Your task to perform on an android device: empty trash in the gmail app Image 0: 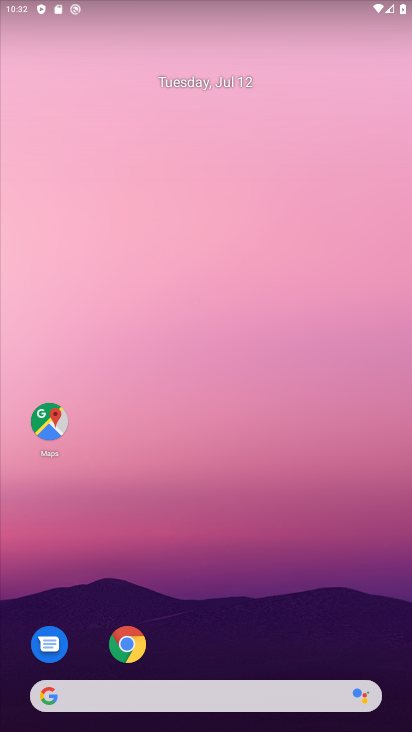
Step 0: drag from (206, 636) to (312, 56)
Your task to perform on an android device: empty trash in the gmail app Image 1: 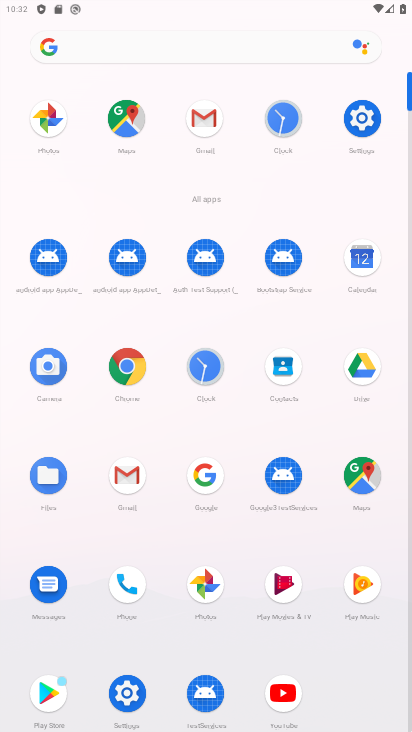
Step 1: click (207, 125)
Your task to perform on an android device: empty trash in the gmail app Image 2: 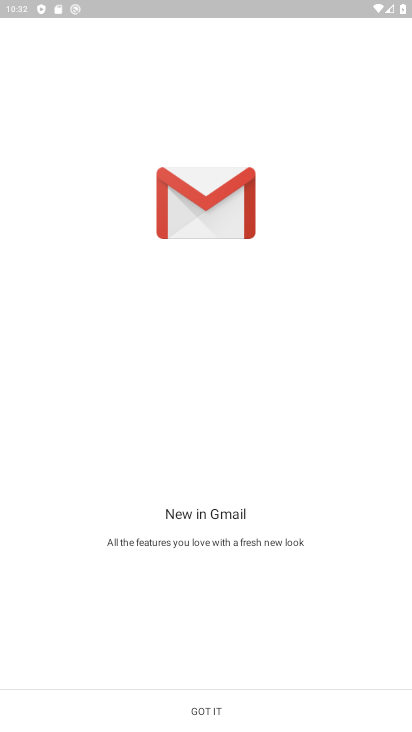
Step 2: click (209, 712)
Your task to perform on an android device: empty trash in the gmail app Image 3: 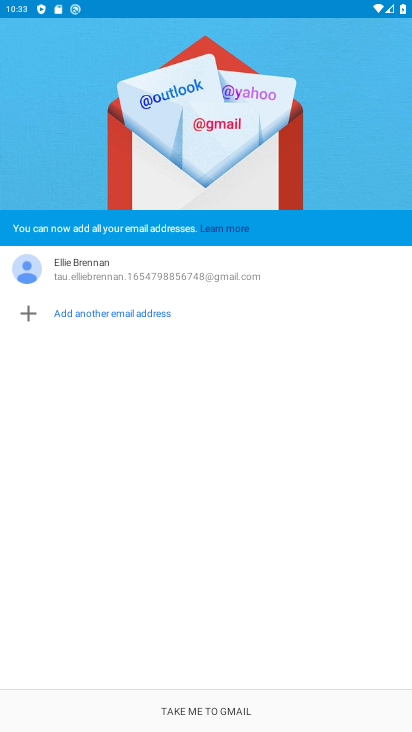
Step 3: click (209, 712)
Your task to perform on an android device: empty trash in the gmail app Image 4: 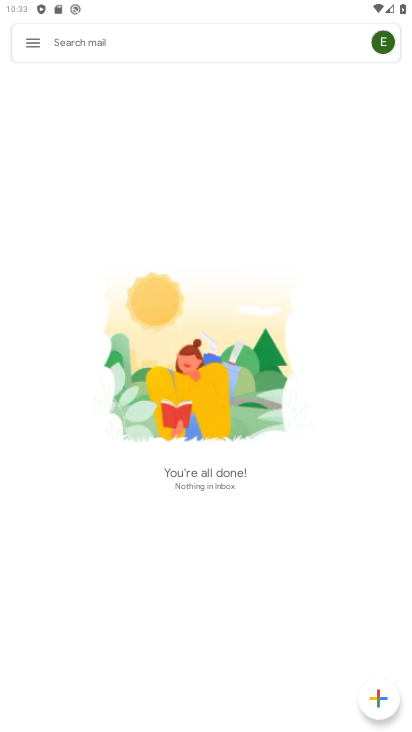
Step 4: click (20, 42)
Your task to perform on an android device: empty trash in the gmail app Image 5: 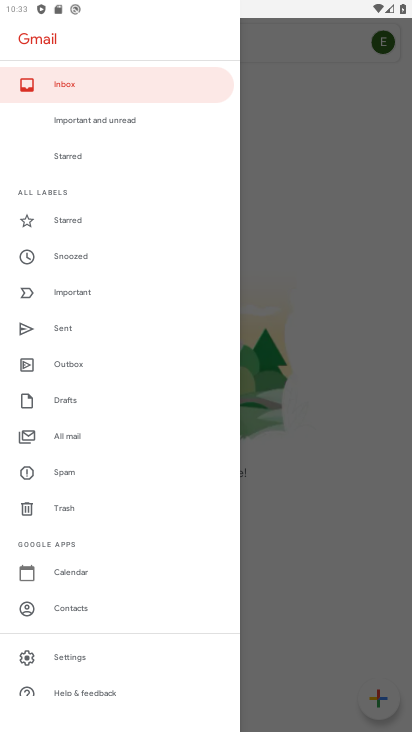
Step 5: click (89, 498)
Your task to perform on an android device: empty trash in the gmail app Image 6: 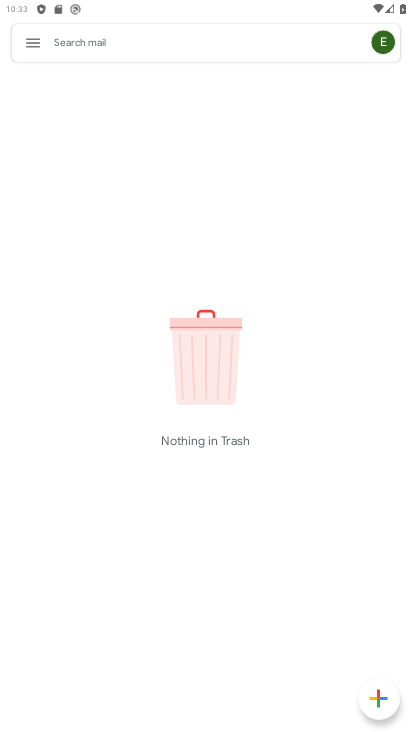
Step 6: task complete